Your task to perform on an android device: turn on wifi Image 0: 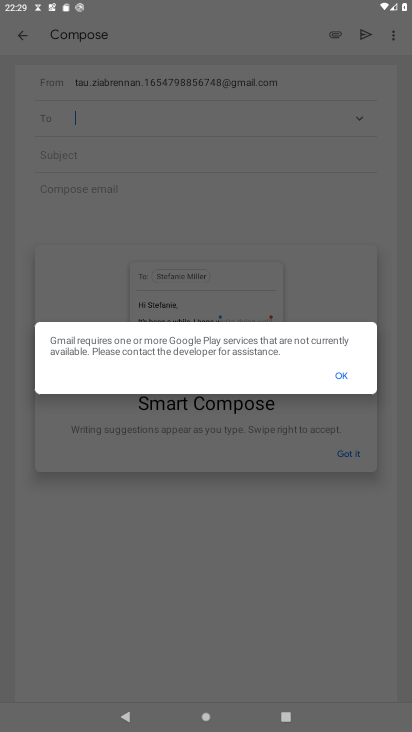
Step 0: press home button
Your task to perform on an android device: turn on wifi Image 1: 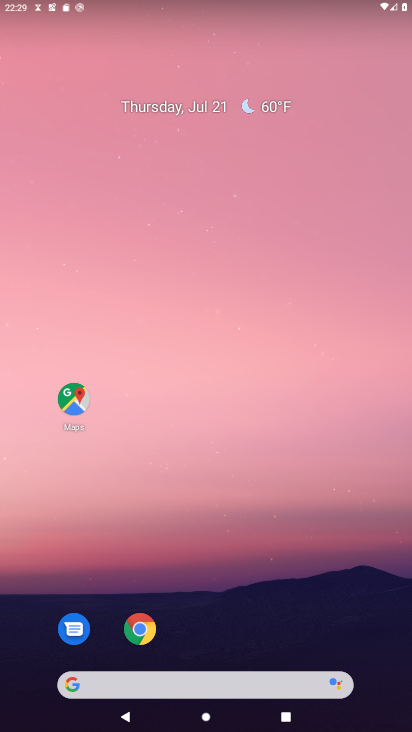
Step 1: drag from (365, 602) to (298, 37)
Your task to perform on an android device: turn on wifi Image 2: 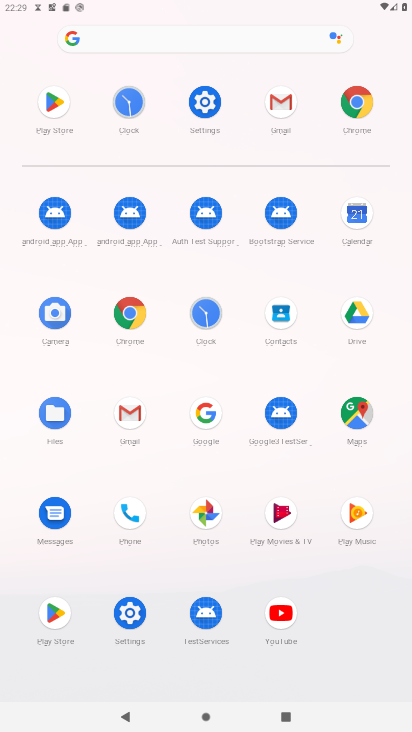
Step 2: click (209, 108)
Your task to perform on an android device: turn on wifi Image 3: 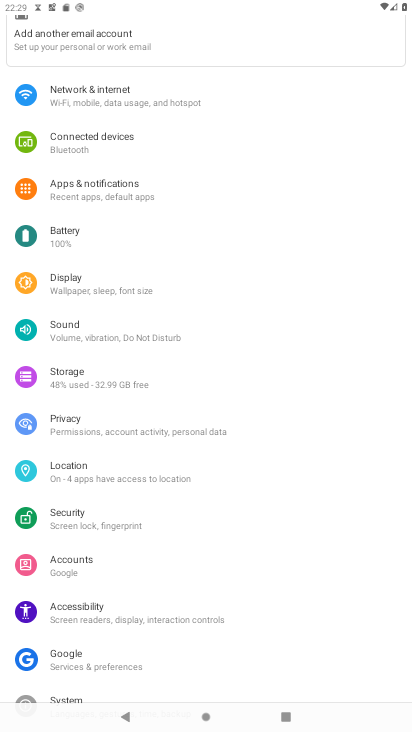
Step 3: click (123, 103)
Your task to perform on an android device: turn on wifi Image 4: 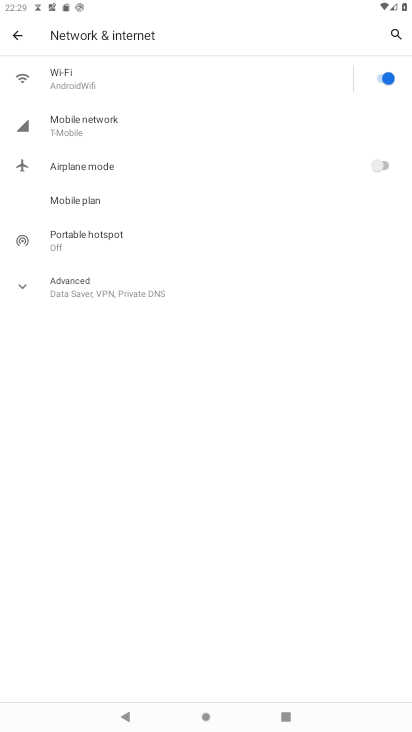
Step 4: click (73, 75)
Your task to perform on an android device: turn on wifi Image 5: 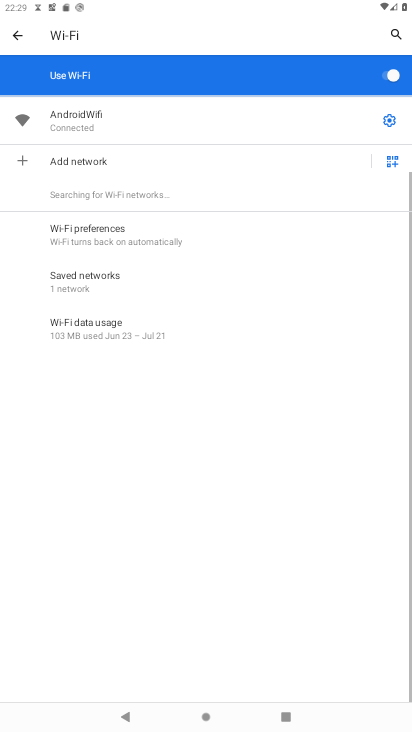
Step 5: task complete